Your task to perform on an android device: delete a single message in the gmail app Image 0: 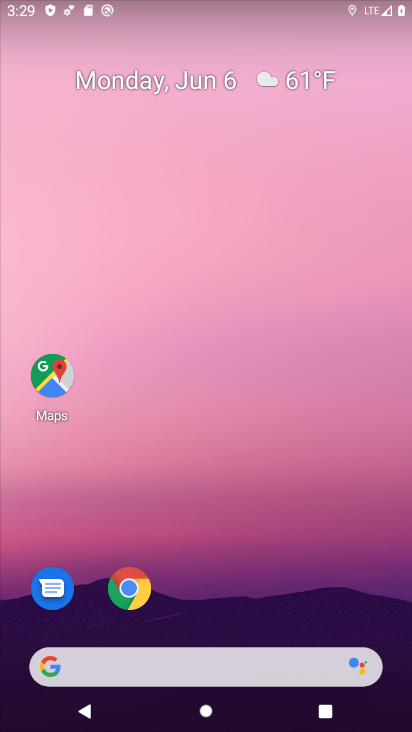
Step 0: drag from (230, 569) to (202, 201)
Your task to perform on an android device: delete a single message in the gmail app Image 1: 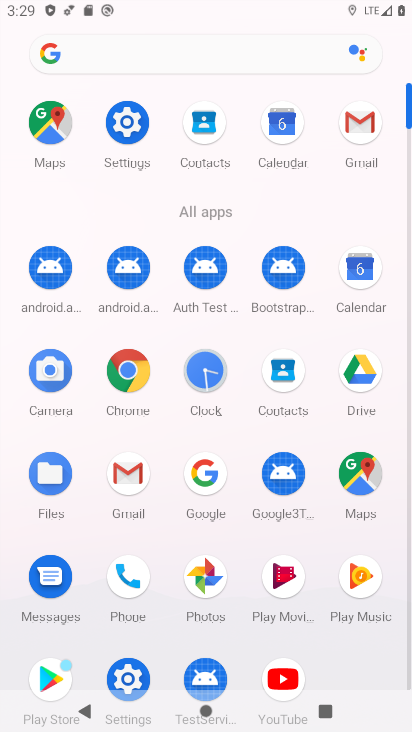
Step 1: click (363, 129)
Your task to perform on an android device: delete a single message in the gmail app Image 2: 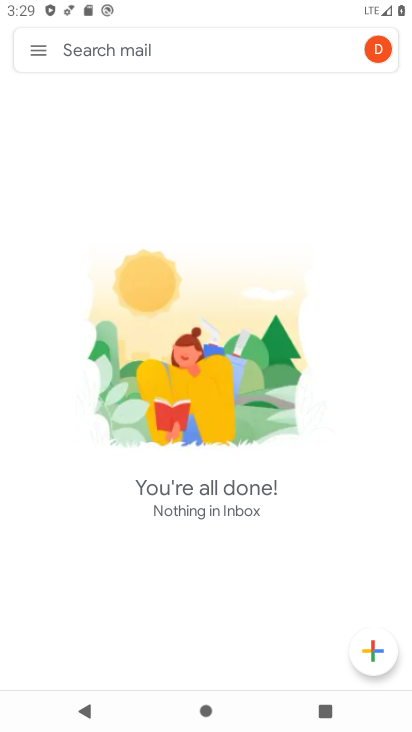
Step 2: task complete